Your task to perform on an android device: open device folders in google photos Image 0: 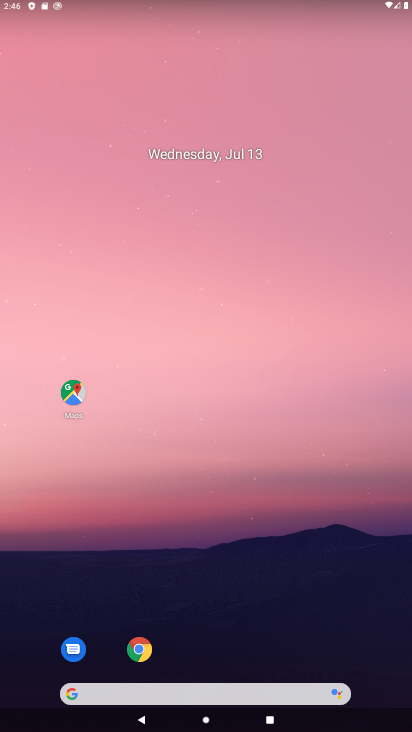
Step 0: press home button
Your task to perform on an android device: open device folders in google photos Image 1: 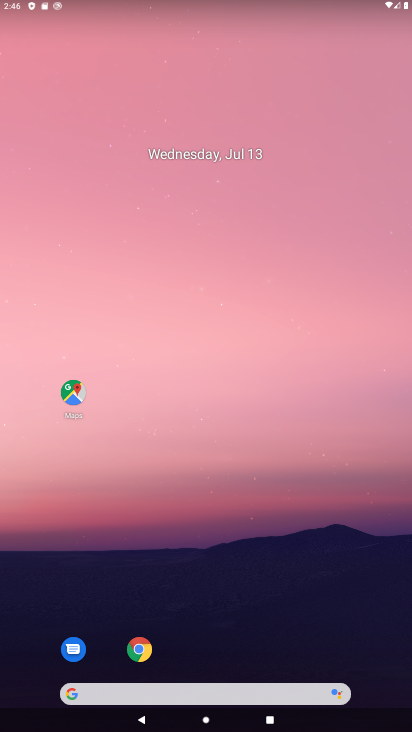
Step 1: drag from (217, 659) to (300, 37)
Your task to perform on an android device: open device folders in google photos Image 2: 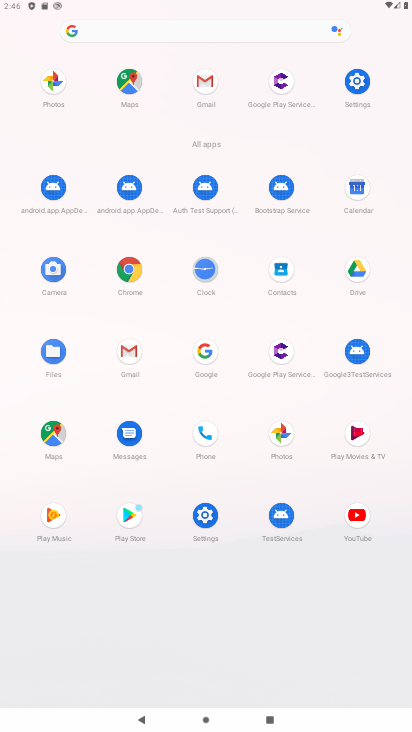
Step 2: click (282, 429)
Your task to perform on an android device: open device folders in google photos Image 3: 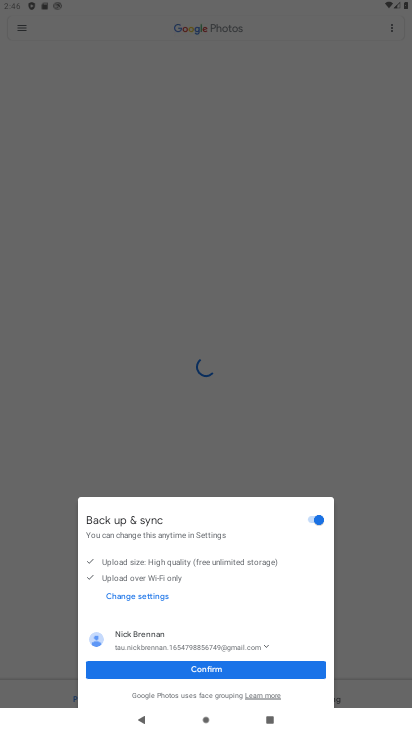
Step 3: click (213, 668)
Your task to perform on an android device: open device folders in google photos Image 4: 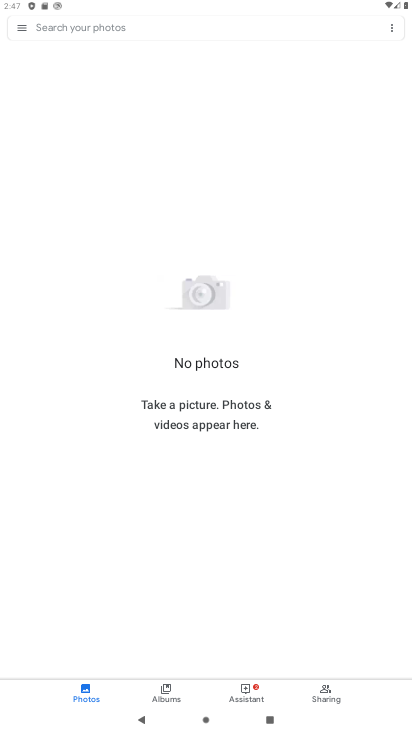
Step 4: click (74, 21)
Your task to perform on an android device: open device folders in google photos Image 5: 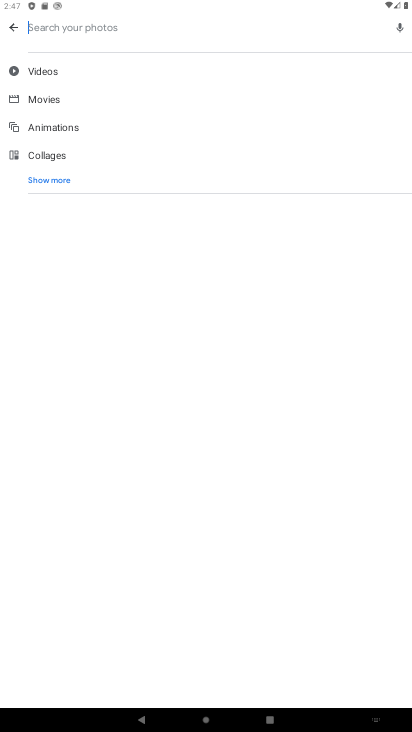
Step 5: type "device"
Your task to perform on an android device: open device folders in google photos Image 6: 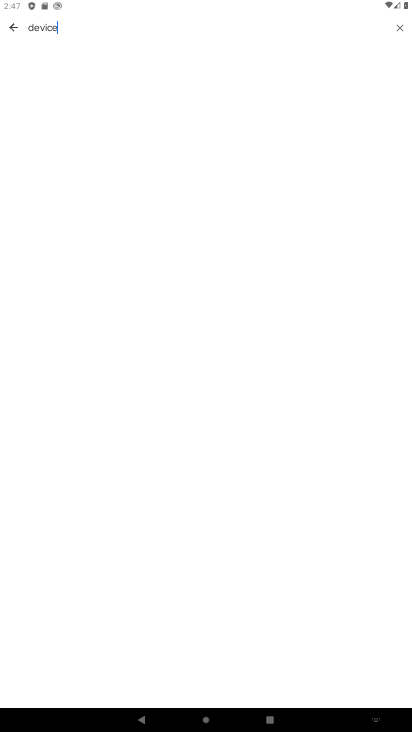
Step 6: type ""
Your task to perform on an android device: open device folders in google photos Image 7: 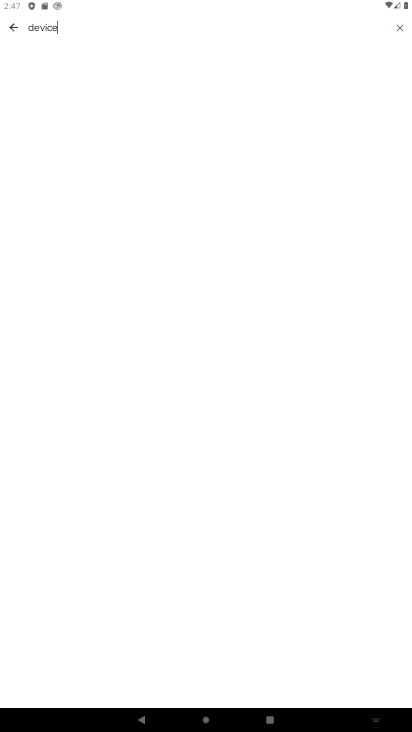
Step 7: task complete